Your task to perform on an android device: Search for hotels in London Image 0: 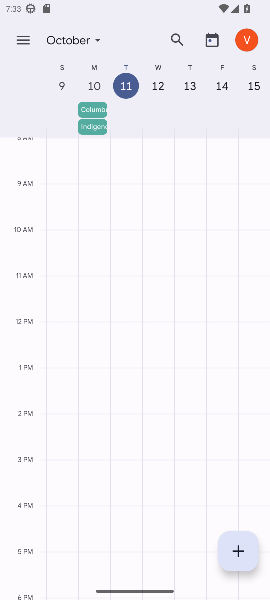
Step 0: press home button
Your task to perform on an android device: Search for hotels in London Image 1: 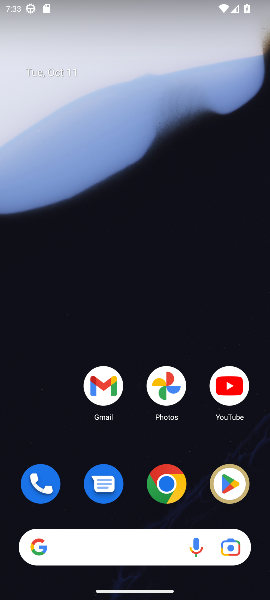
Step 1: click (168, 483)
Your task to perform on an android device: Search for hotels in London Image 2: 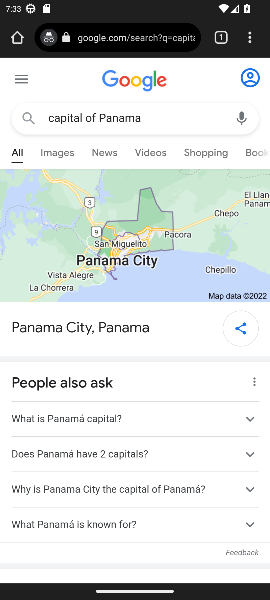
Step 2: click (128, 39)
Your task to perform on an android device: Search for hotels in London Image 3: 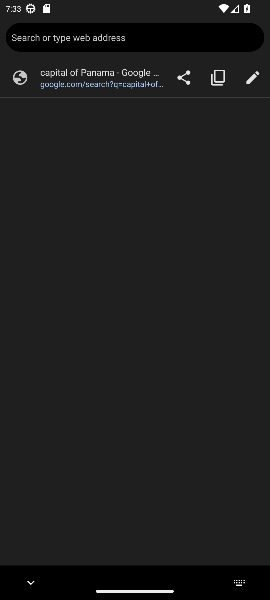
Step 3: type "hotels in London"
Your task to perform on an android device: Search for hotels in London Image 4: 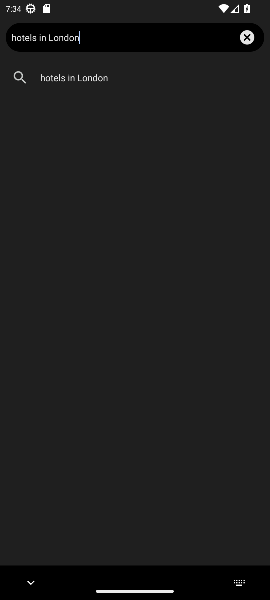
Step 4: click (78, 83)
Your task to perform on an android device: Search for hotels in London Image 5: 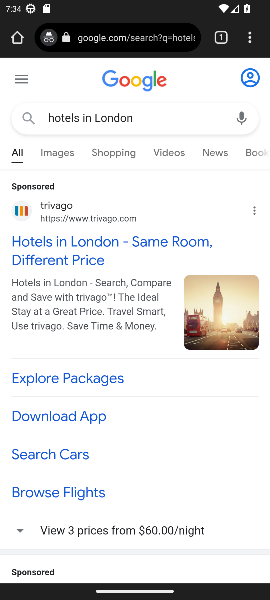
Step 5: task complete